Your task to perform on an android device: check android version Image 0: 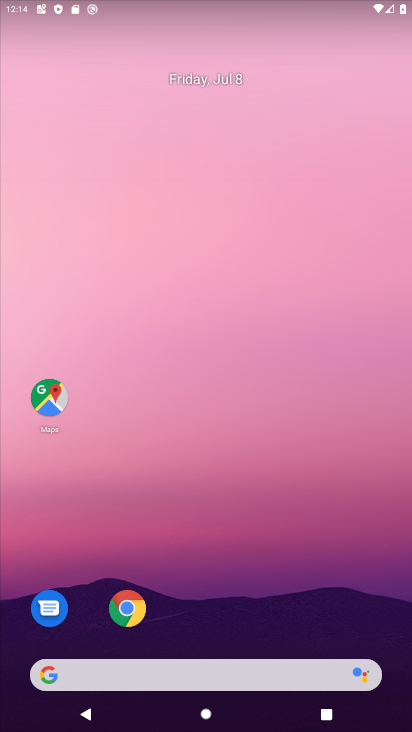
Step 0: drag from (157, 336) to (264, 77)
Your task to perform on an android device: check android version Image 1: 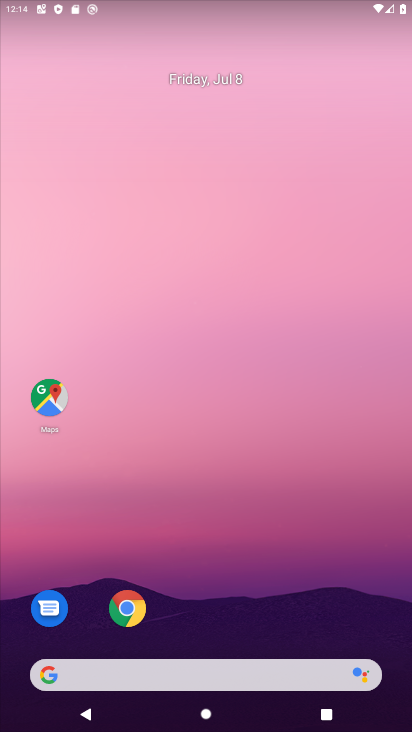
Step 1: drag from (34, 694) to (231, 40)
Your task to perform on an android device: check android version Image 2: 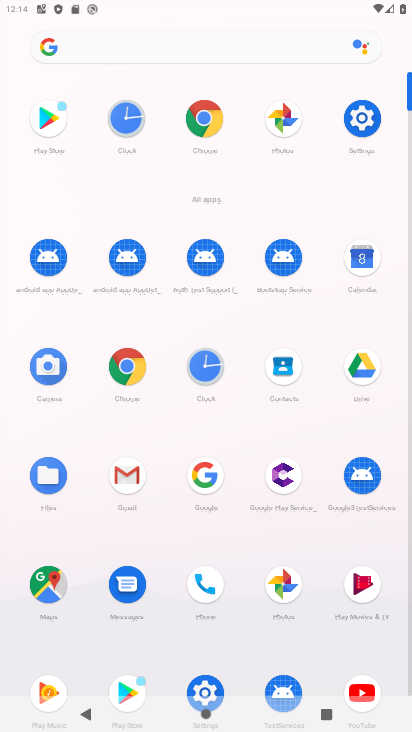
Step 2: click (212, 690)
Your task to perform on an android device: check android version Image 3: 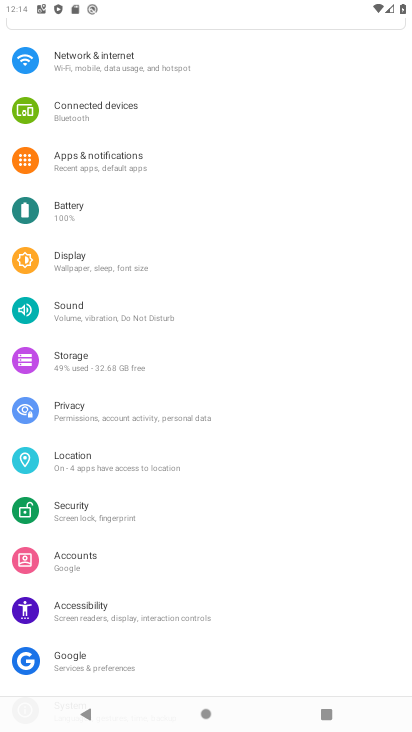
Step 3: drag from (233, 585) to (265, 314)
Your task to perform on an android device: check android version Image 4: 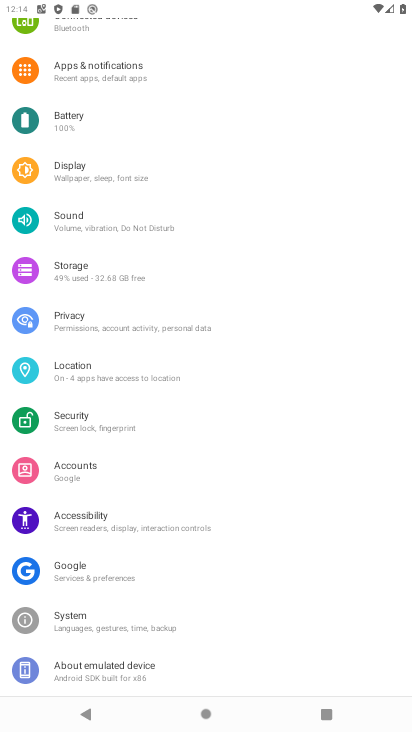
Step 4: drag from (233, 638) to (284, 281)
Your task to perform on an android device: check android version Image 5: 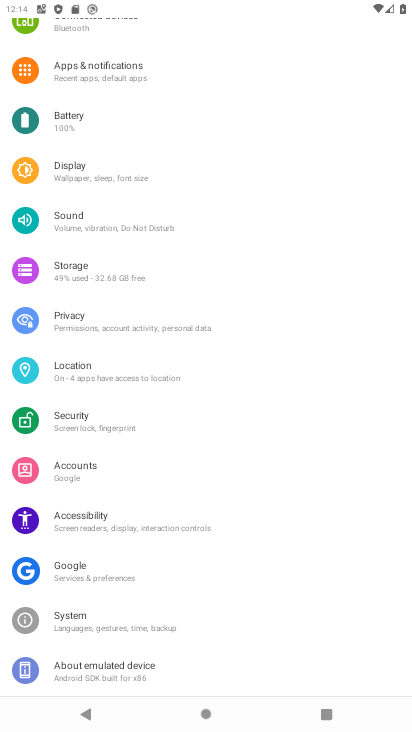
Step 5: click (112, 667)
Your task to perform on an android device: check android version Image 6: 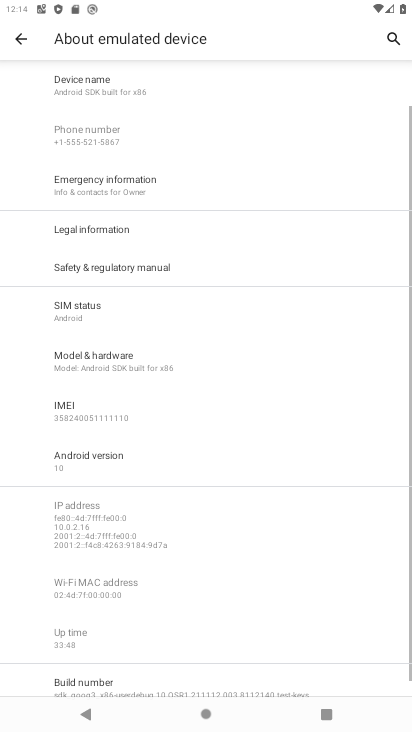
Step 6: task complete